Your task to perform on an android device: toggle pop-ups in chrome Image 0: 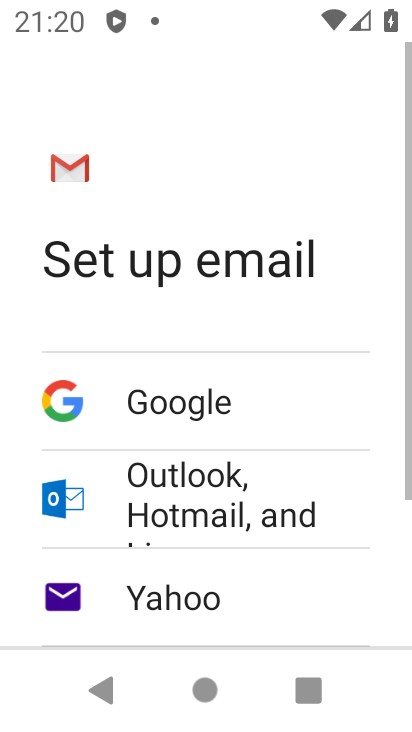
Step 0: press home button
Your task to perform on an android device: toggle pop-ups in chrome Image 1: 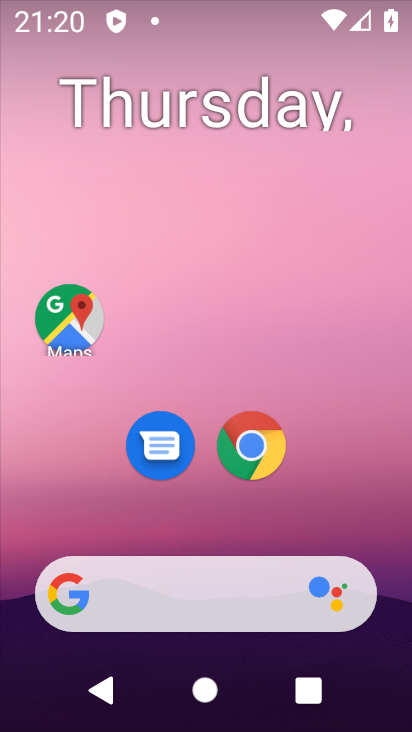
Step 1: click (266, 442)
Your task to perform on an android device: toggle pop-ups in chrome Image 2: 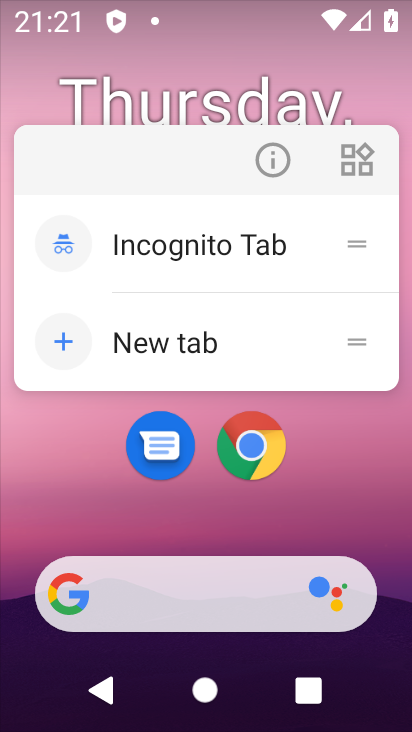
Step 2: click (246, 437)
Your task to perform on an android device: toggle pop-ups in chrome Image 3: 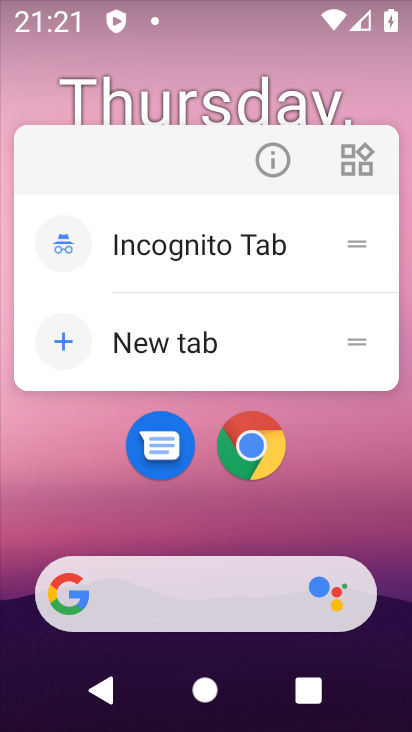
Step 3: click (265, 451)
Your task to perform on an android device: toggle pop-ups in chrome Image 4: 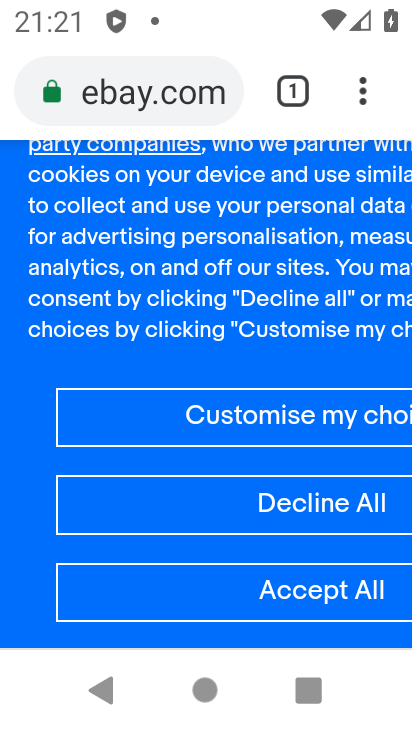
Step 4: click (362, 94)
Your task to perform on an android device: toggle pop-ups in chrome Image 5: 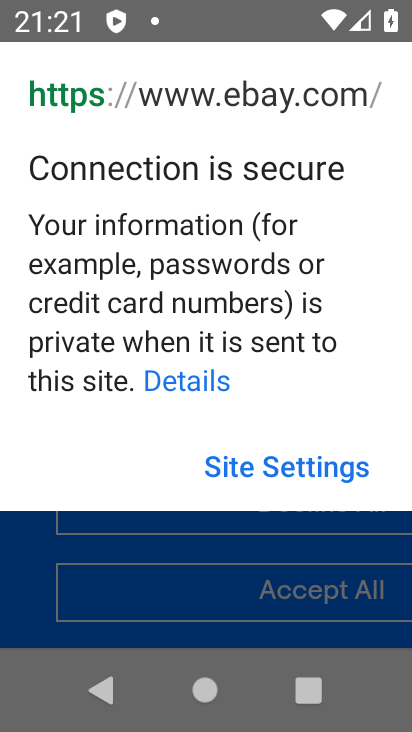
Step 5: press back button
Your task to perform on an android device: toggle pop-ups in chrome Image 6: 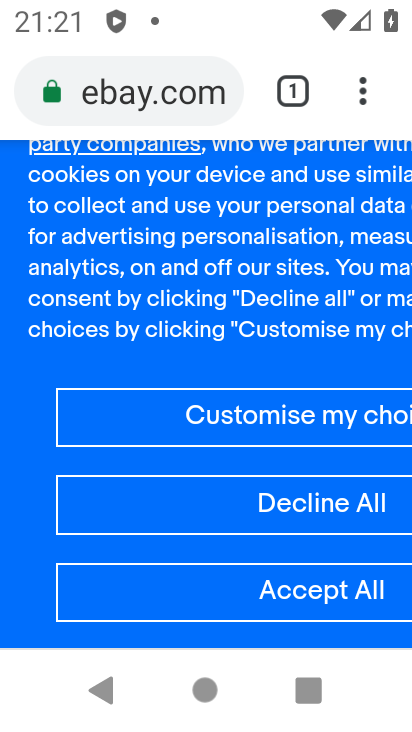
Step 6: click (376, 100)
Your task to perform on an android device: toggle pop-ups in chrome Image 7: 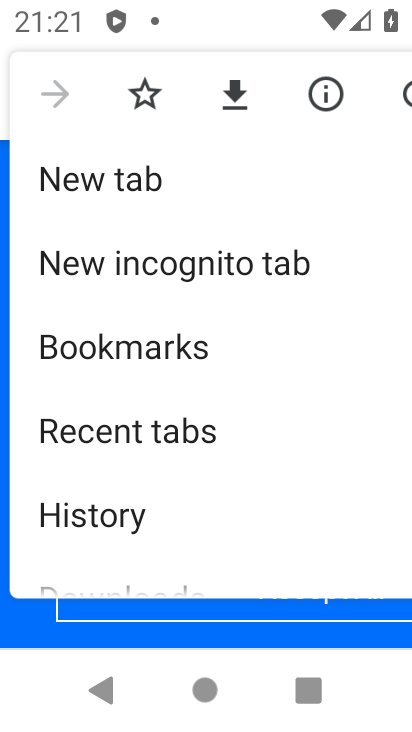
Step 7: drag from (121, 532) to (279, 97)
Your task to perform on an android device: toggle pop-ups in chrome Image 8: 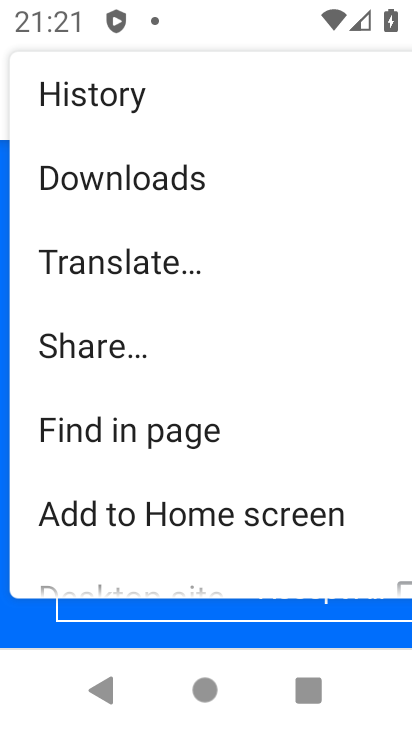
Step 8: drag from (72, 527) to (219, 148)
Your task to perform on an android device: toggle pop-ups in chrome Image 9: 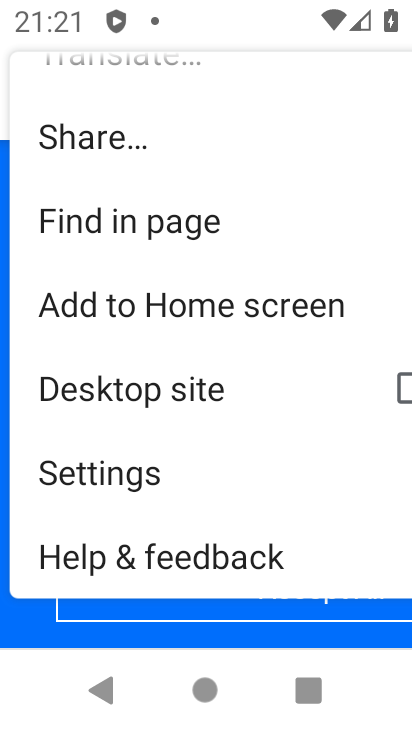
Step 9: click (108, 463)
Your task to perform on an android device: toggle pop-ups in chrome Image 10: 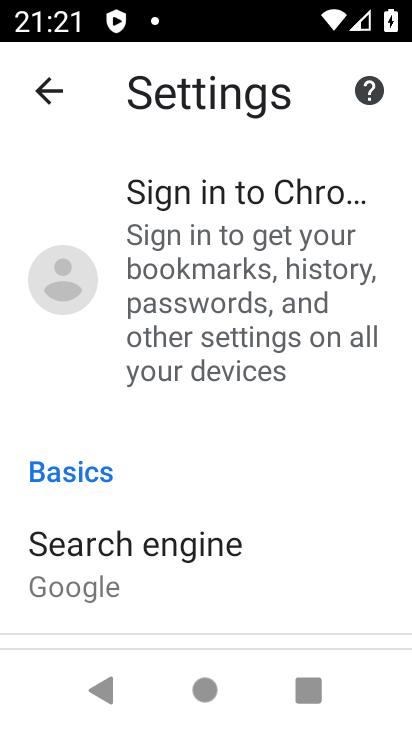
Step 10: drag from (22, 444) to (232, 114)
Your task to perform on an android device: toggle pop-ups in chrome Image 11: 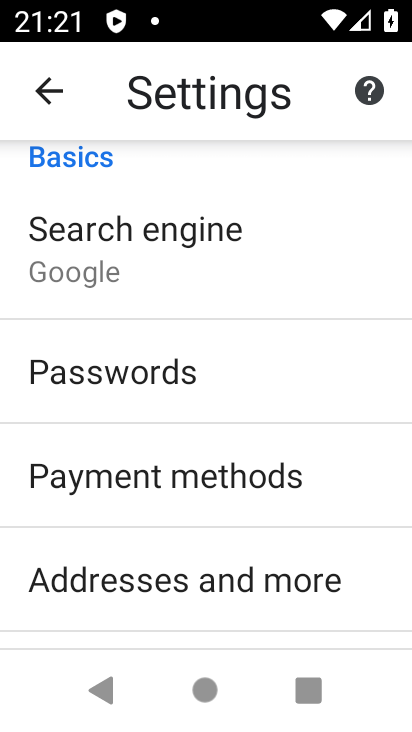
Step 11: drag from (29, 543) to (259, 191)
Your task to perform on an android device: toggle pop-ups in chrome Image 12: 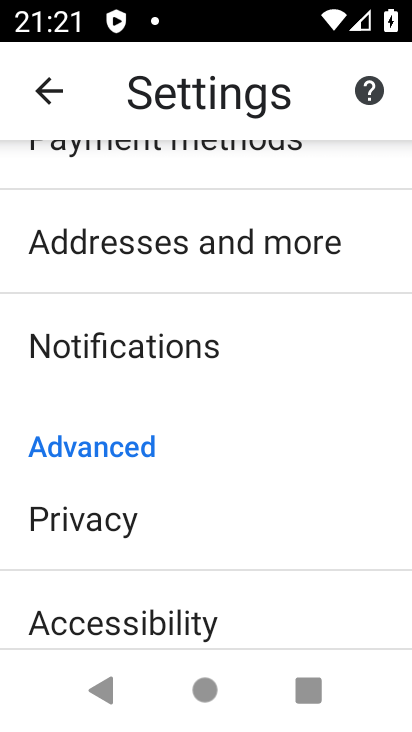
Step 12: drag from (16, 641) to (254, 258)
Your task to perform on an android device: toggle pop-ups in chrome Image 13: 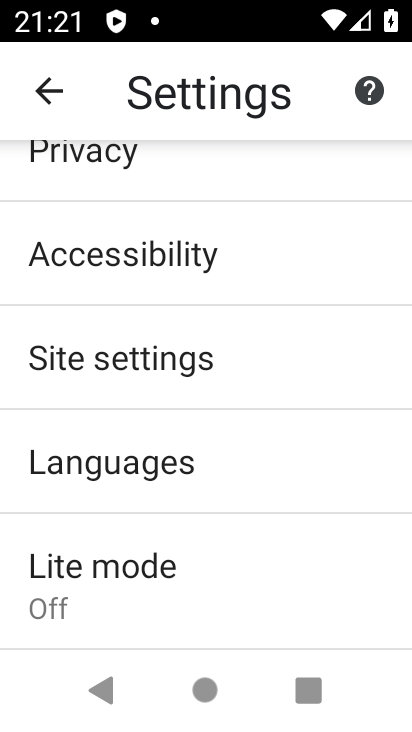
Step 13: click (196, 357)
Your task to perform on an android device: toggle pop-ups in chrome Image 14: 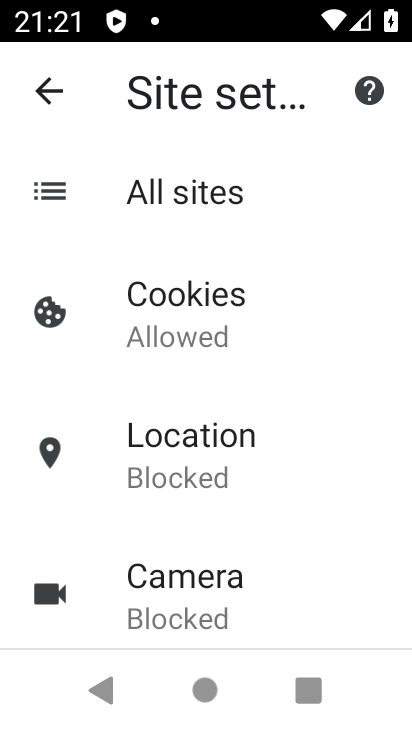
Step 14: drag from (52, 483) to (279, 132)
Your task to perform on an android device: toggle pop-ups in chrome Image 15: 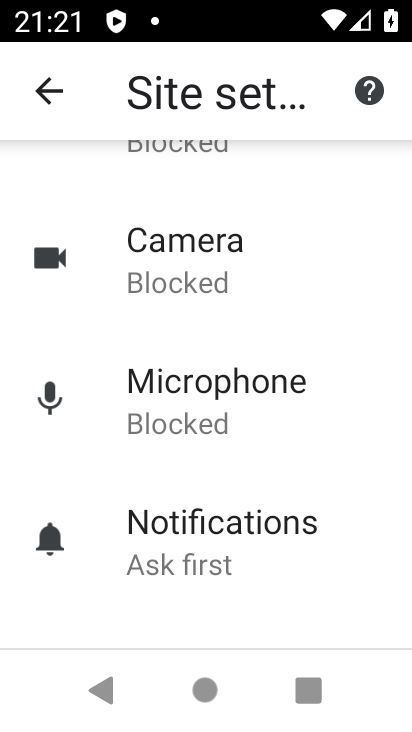
Step 15: drag from (0, 546) to (239, 186)
Your task to perform on an android device: toggle pop-ups in chrome Image 16: 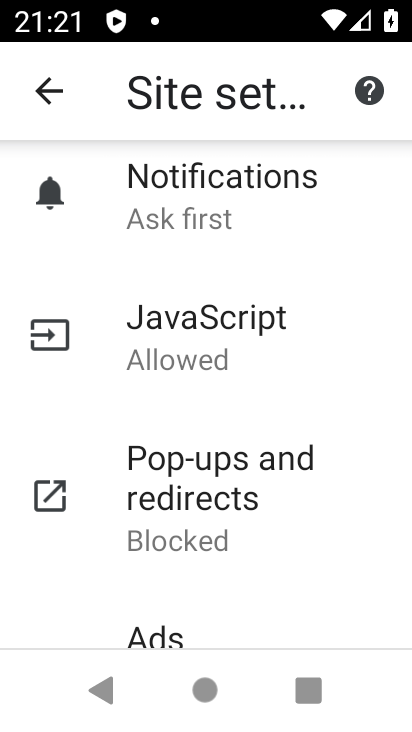
Step 16: click (122, 484)
Your task to perform on an android device: toggle pop-ups in chrome Image 17: 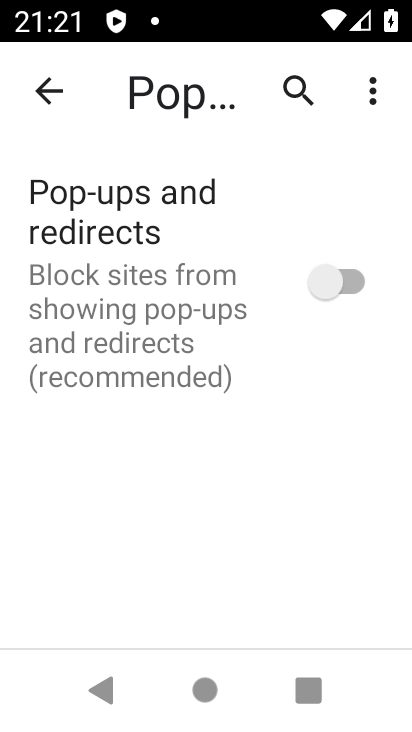
Step 17: click (322, 286)
Your task to perform on an android device: toggle pop-ups in chrome Image 18: 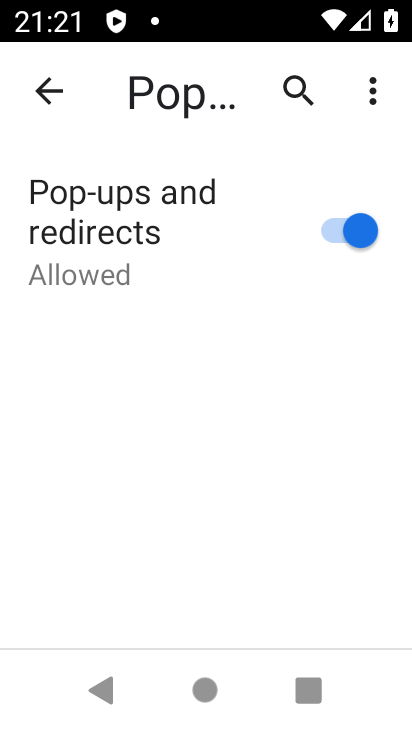
Step 18: task complete